Your task to perform on an android device: create a new album in the google photos Image 0: 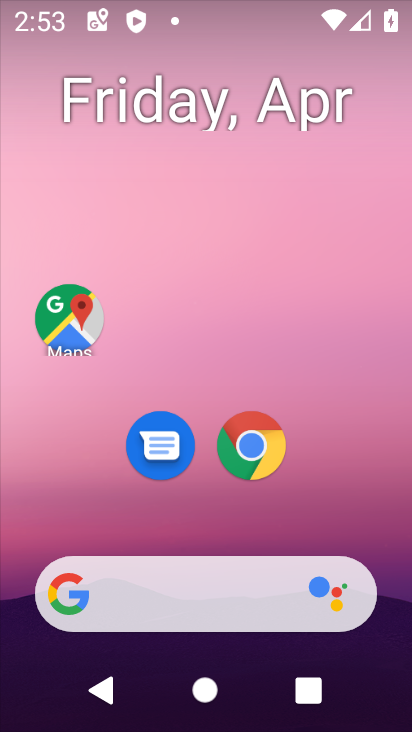
Step 0: drag from (329, 405) to (206, 106)
Your task to perform on an android device: create a new album in the google photos Image 1: 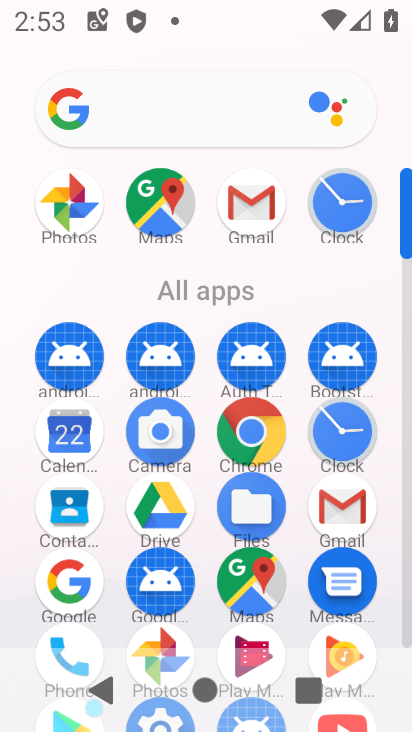
Step 1: click (76, 203)
Your task to perform on an android device: create a new album in the google photos Image 2: 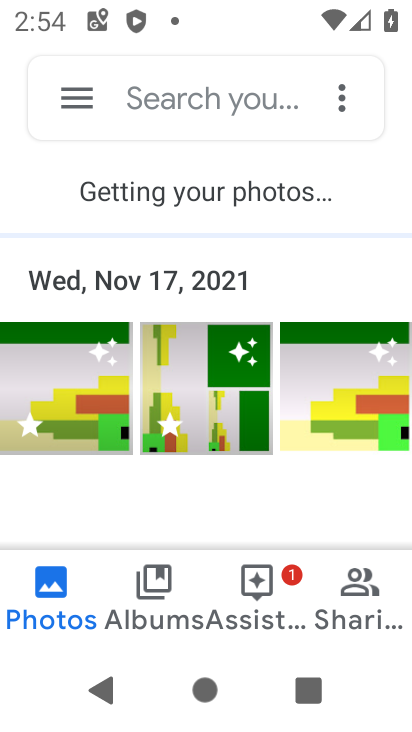
Step 2: click (164, 593)
Your task to perform on an android device: create a new album in the google photos Image 3: 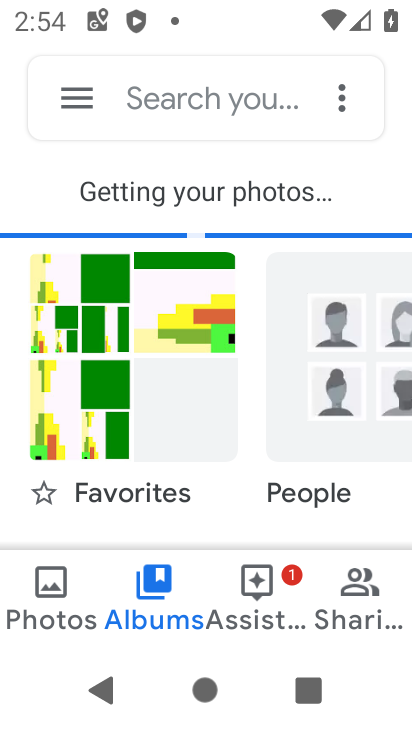
Step 3: click (156, 608)
Your task to perform on an android device: create a new album in the google photos Image 4: 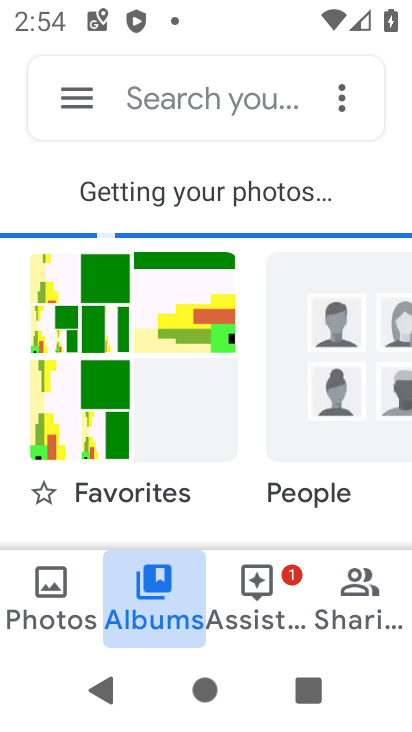
Step 4: drag from (213, 529) to (205, 102)
Your task to perform on an android device: create a new album in the google photos Image 5: 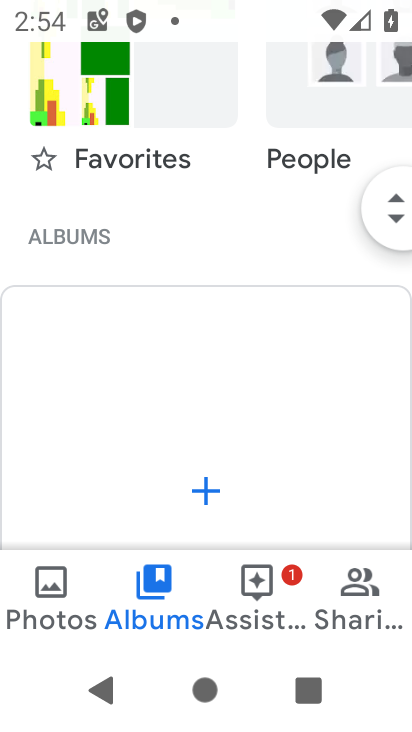
Step 5: click (207, 476)
Your task to perform on an android device: create a new album in the google photos Image 6: 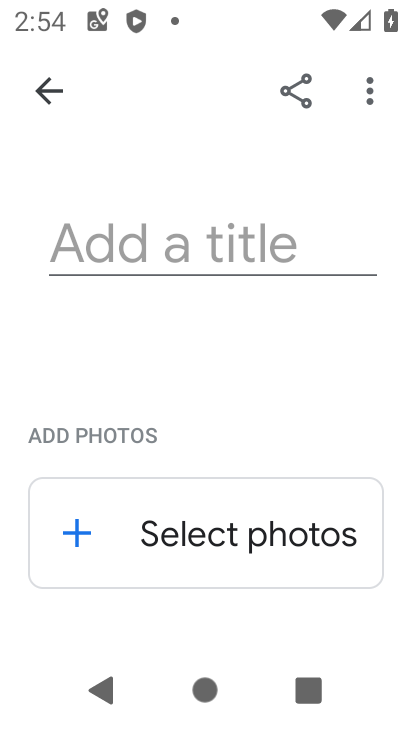
Step 6: click (208, 257)
Your task to perform on an android device: create a new album in the google photos Image 7: 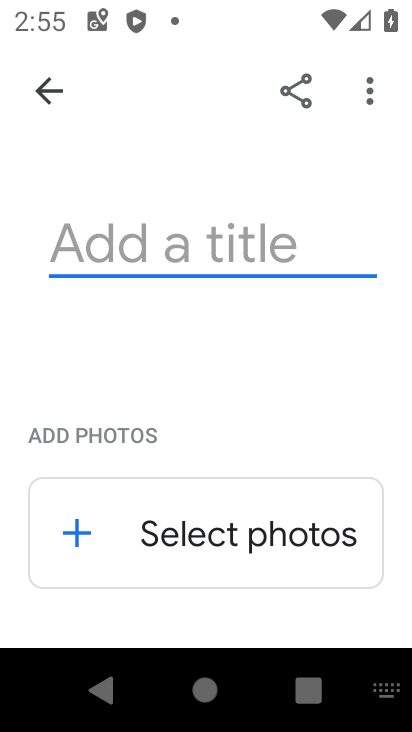
Step 7: type "cold"
Your task to perform on an android device: create a new album in the google photos Image 8: 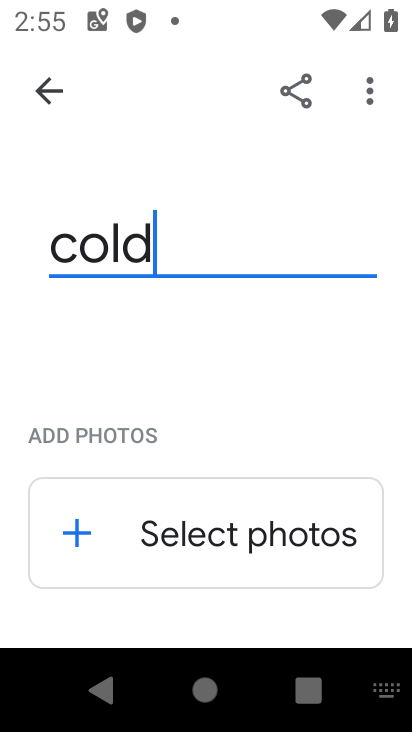
Step 8: click (185, 535)
Your task to perform on an android device: create a new album in the google photos Image 9: 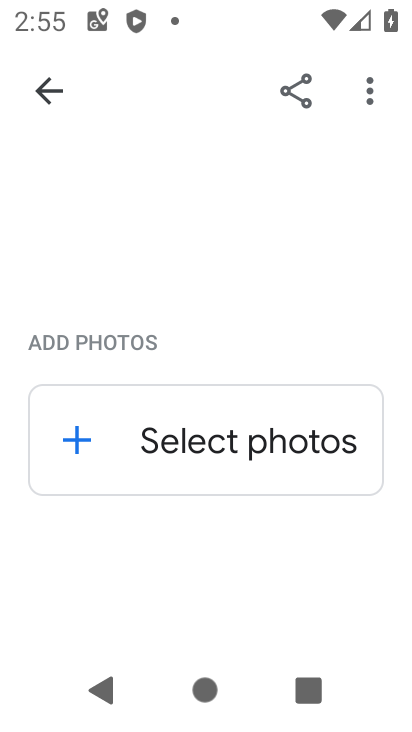
Step 9: click (86, 441)
Your task to perform on an android device: create a new album in the google photos Image 10: 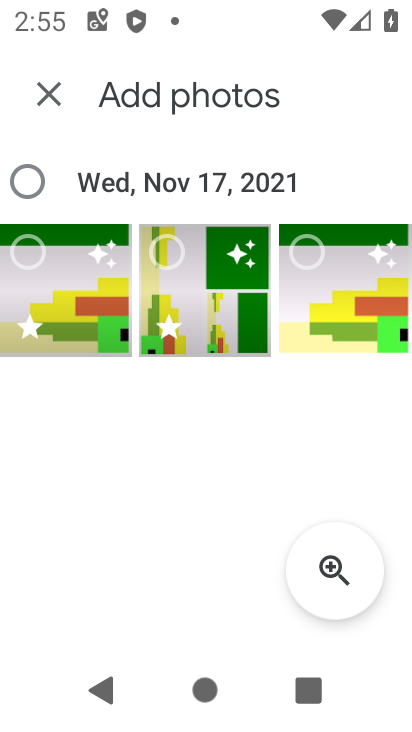
Step 10: click (24, 187)
Your task to perform on an android device: create a new album in the google photos Image 11: 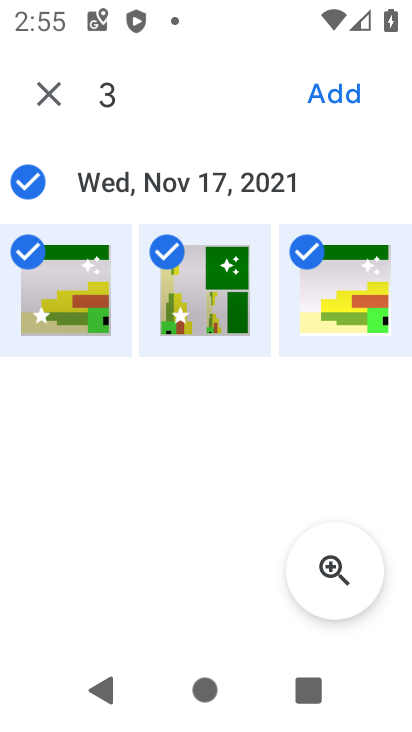
Step 11: click (353, 92)
Your task to perform on an android device: create a new album in the google photos Image 12: 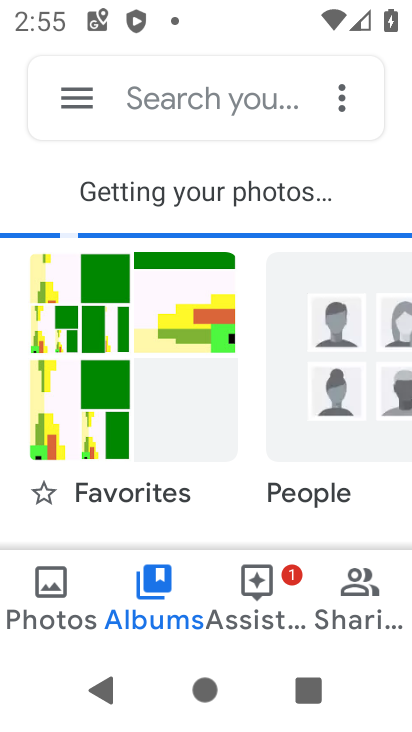
Step 12: task complete